Your task to perform on an android device: set an alarm Image 0: 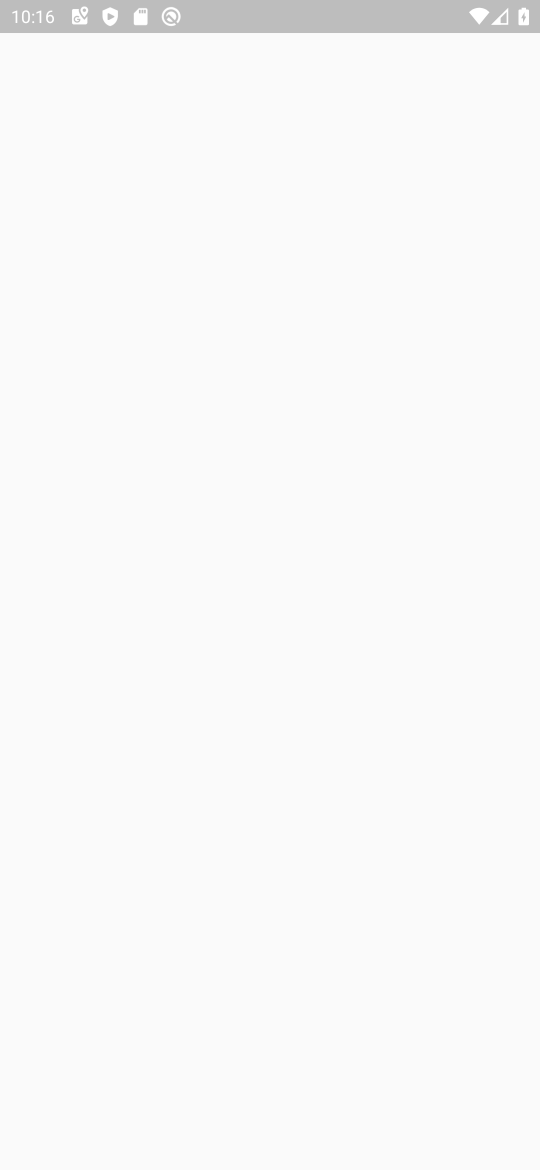
Step 0: press home button
Your task to perform on an android device: set an alarm Image 1: 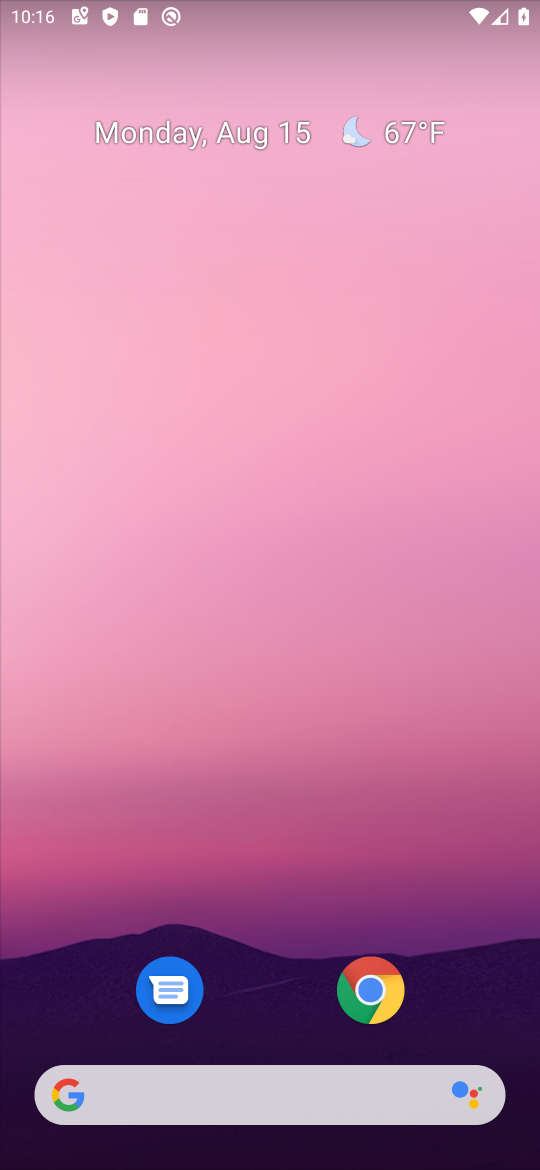
Step 1: drag from (287, 962) to (246, 105)
Your task to perform on an android device: set an alarm Image 2: 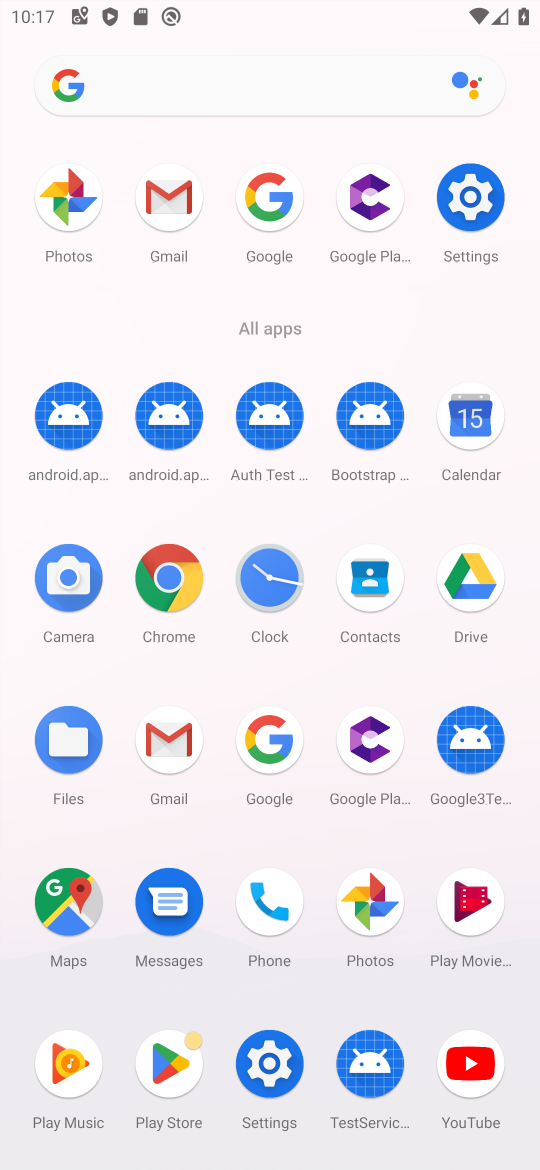
Step 2: click (271, 579)
Your task to perform on an android device: set an alarm Image 3: 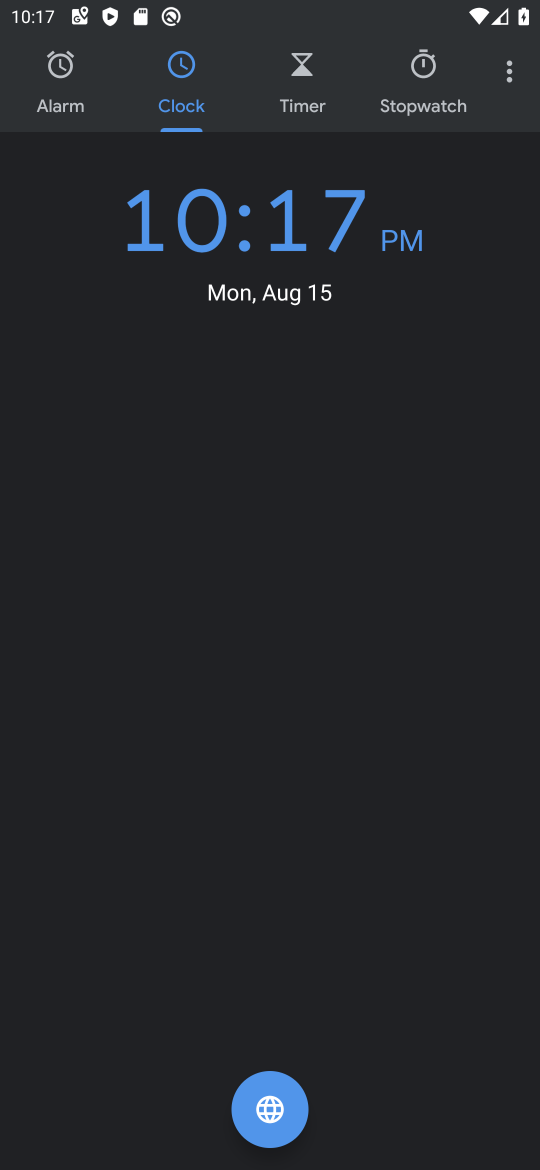
Step 3: click (59, 74)
Your task to perform on an android device: set an alarm Image 4: 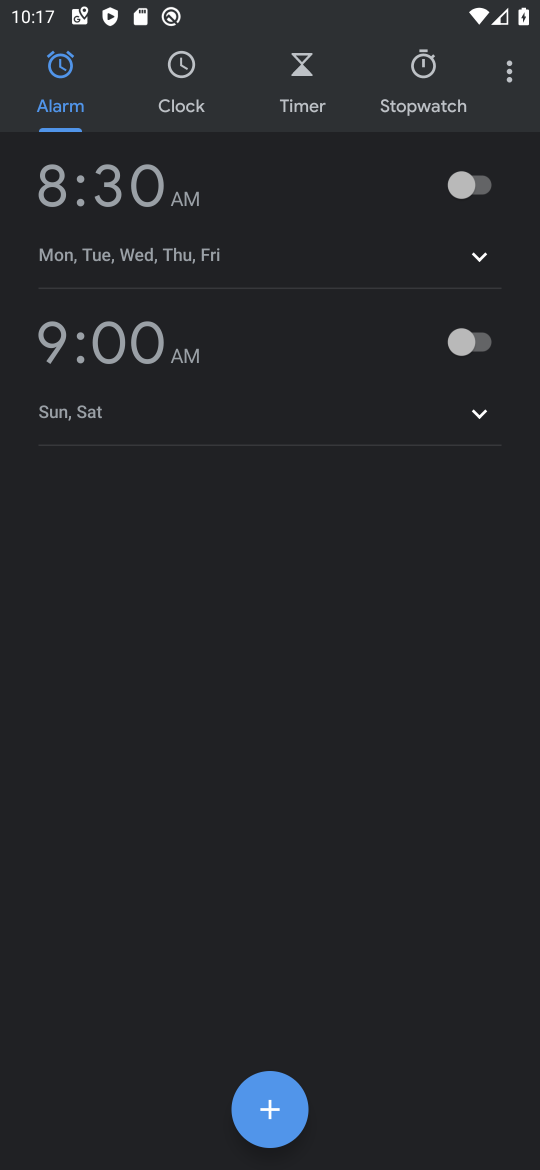
Step 4: click (274, 1112)
Your task to perform on an android device: set an alarm Image 5: 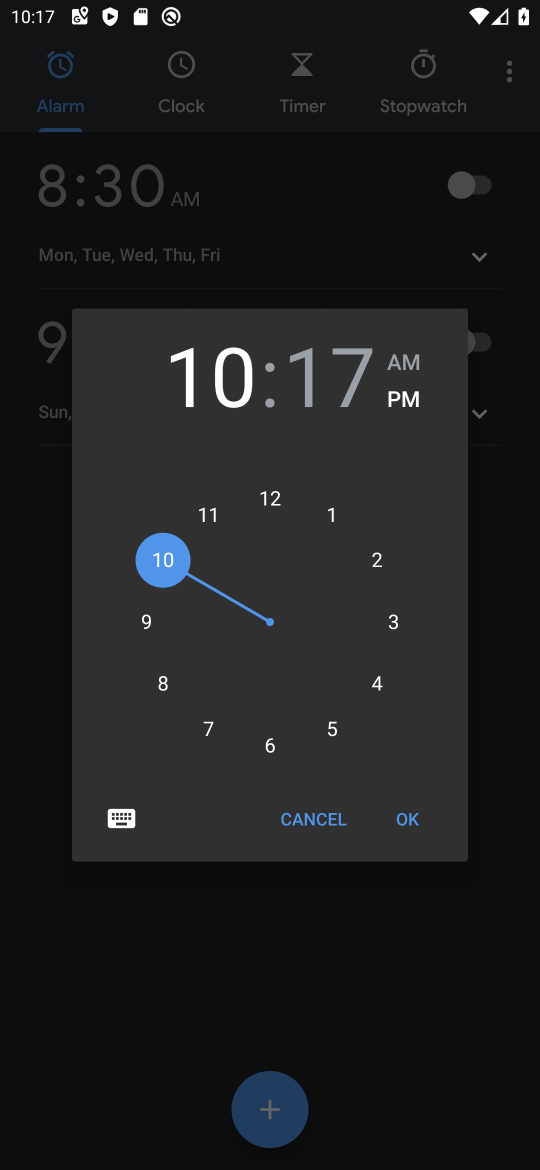
Step 5: click (405, 811)
Your task to perform on an android device: set an alarm Image 6: 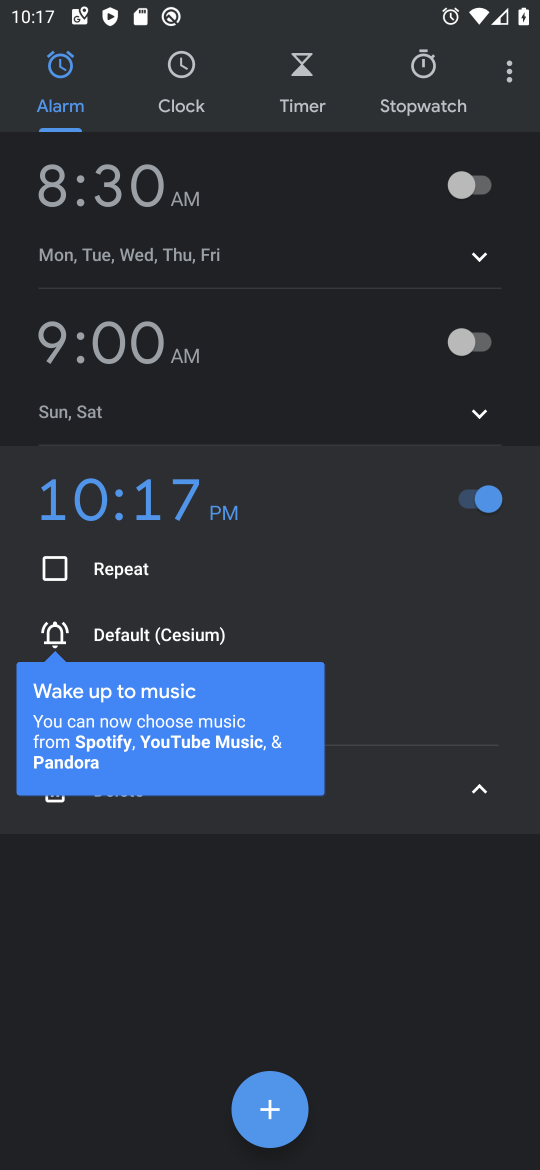
Step 6: task complete